Your task to perform on an android device: Open Wikipedia Image 0: 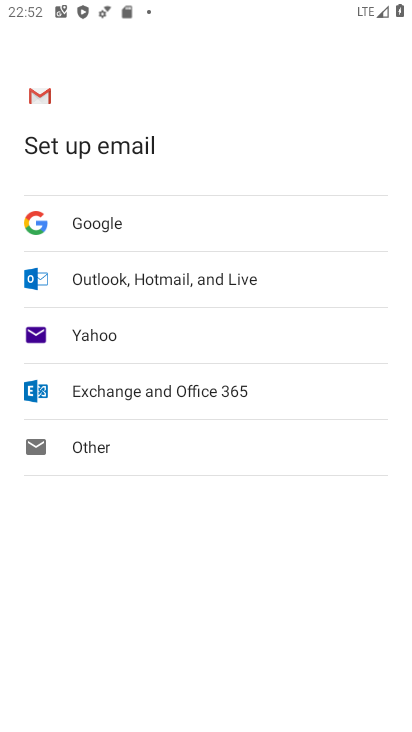
Step 0: press home button
Your task to perform on an android device: Open Wikipedia Image 1: 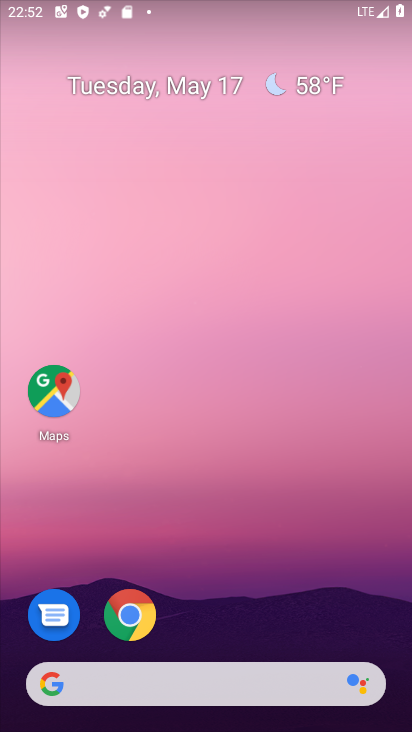
Step 1: drag from (246, 618) to (246, 90)
Your task to perform on an android device: Open Wikipedia Image 2: 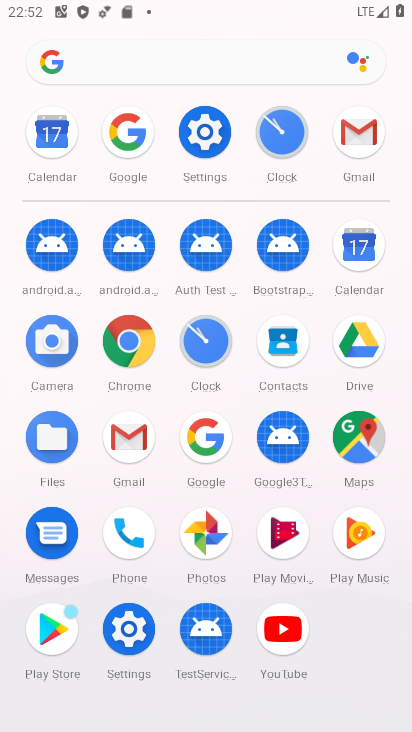
Step 2: click (140, 337)
Your task to perform on an android device: Open Wikipedia Image 3: 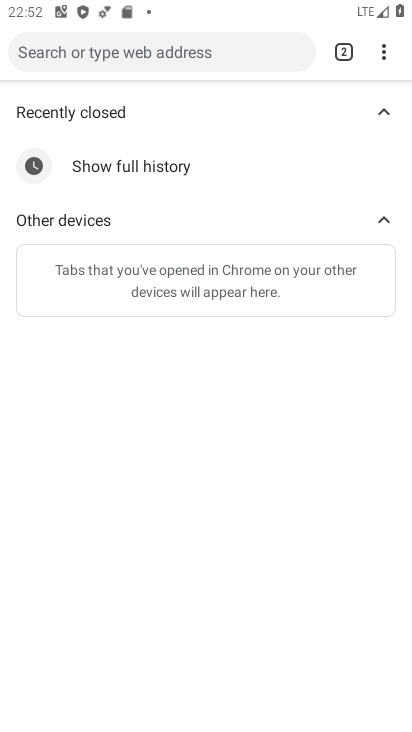
Step 3: click (255, 47)
Your task to perform on an android device: Open Wikipedia Image 4: 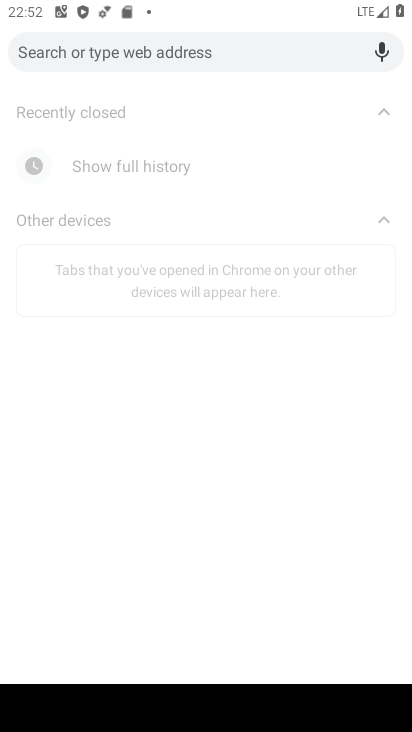
Step 4: type "Wikipedi"
Your task to perform on an android device: Open Wikipedia Image 5: 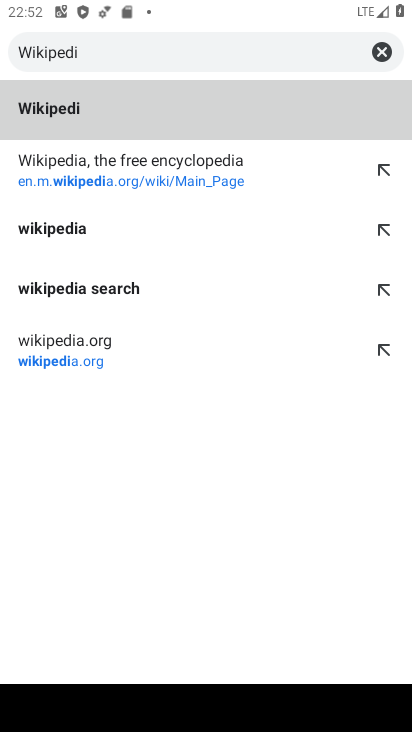
Step 5: click (113, 124)
Your task to perform on an android device: Open Wikipedia Image 6: 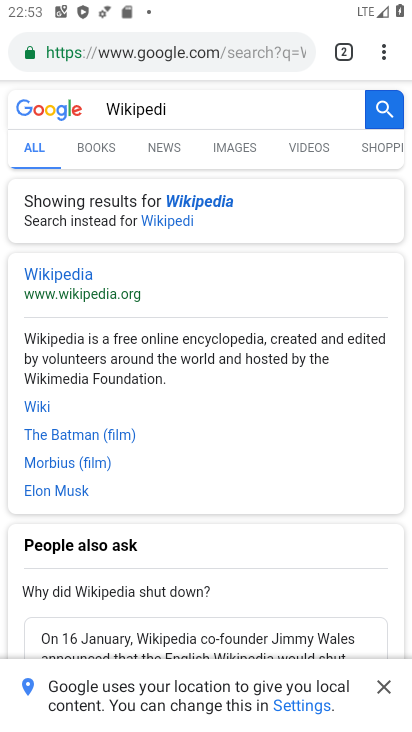
Step 6: click (46, 274)
Your task to perform on an android device: Open Wikipedia Image 7: 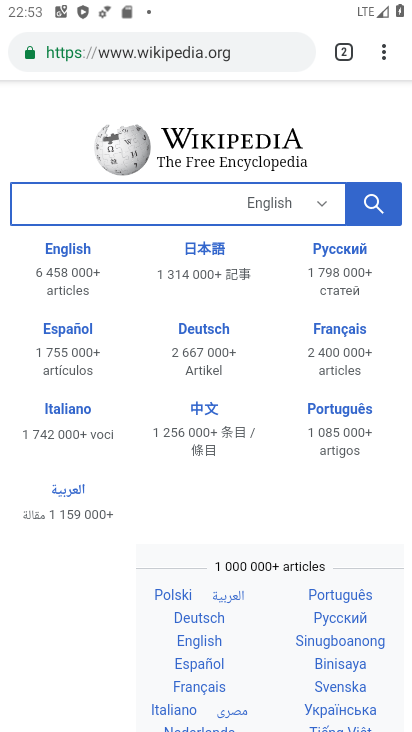
Step 7: task complete